Your task to perform on an android device: Go to eBay Image 0: 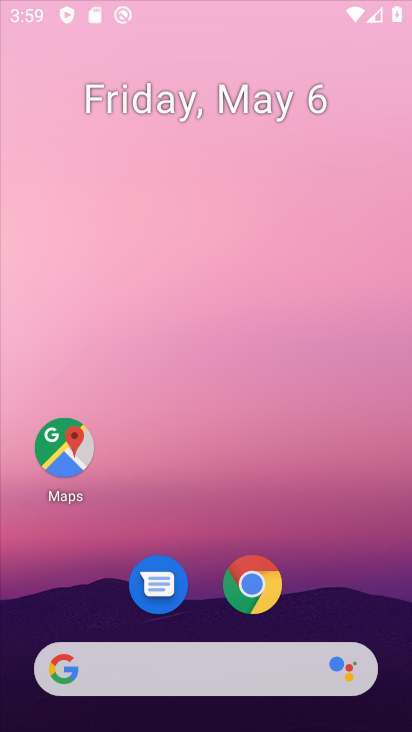
Step 0: click (207, 239)
Your task to perform on an android device: Go to eBay Image 1: 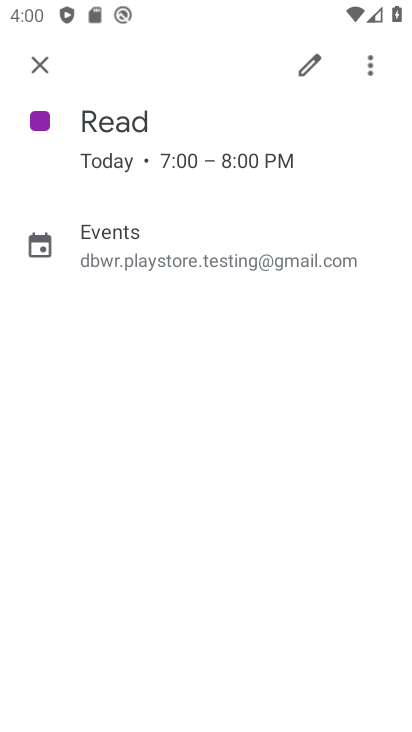
Step 1: press home button
Your task to perform on an android device: Go to eBay Image 2: 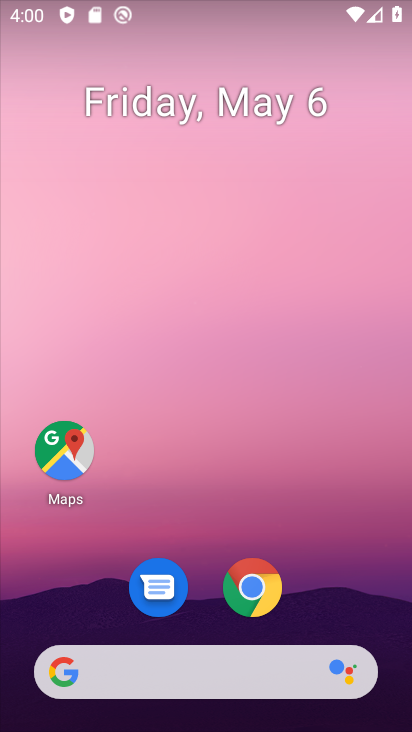
Step 2: drag from (309, 623) to (342, 165)
Your task to perform on an android device: Go to eBay Image 3: 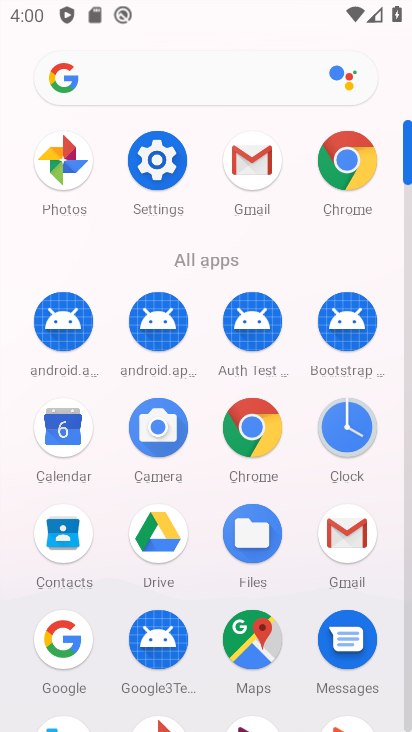
Step 3: click (245, 188)
Your task to perform on an android device: Go to eBay Image 4: 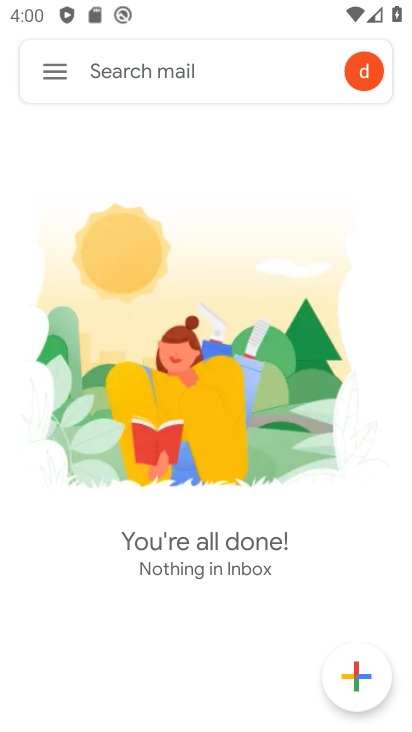
Step 4: click (40, 100)
Your task to perform on an android device: Go to eBay Image 5: 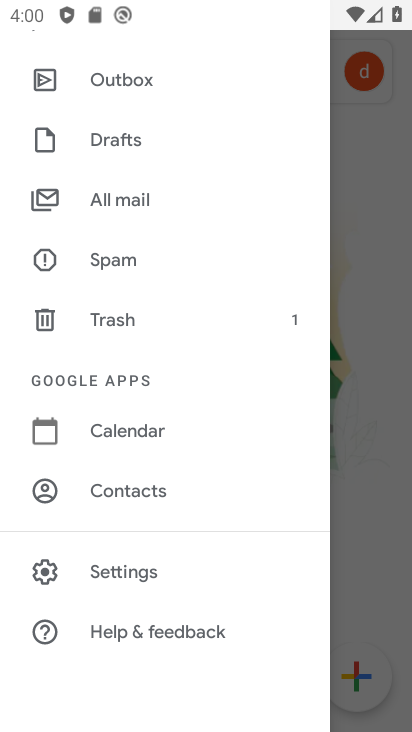
Step 5: drag from (140, 213) to (98, 503)
Your task to perform on an android device: Go to eBay Image 6: 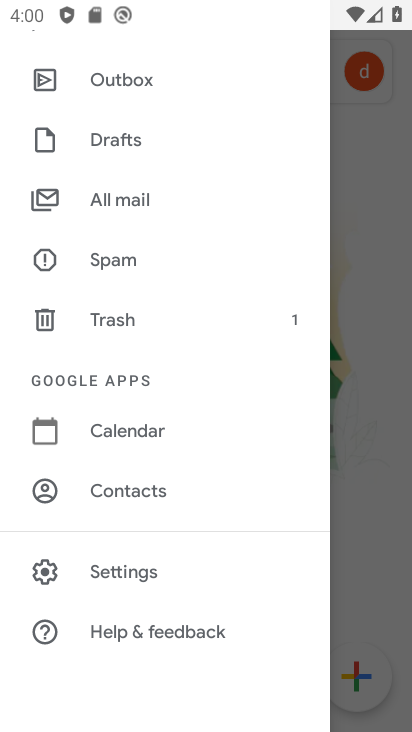
Step 6: drag from (98, 126) to (177, 427)
Your task to perform on an android device: Go to eBay Image 7: 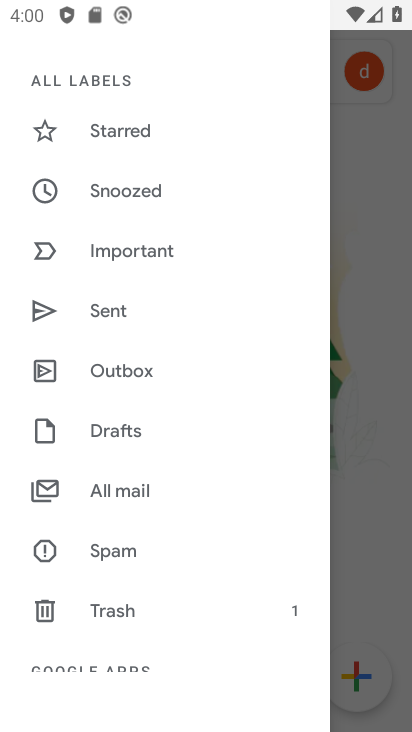
Step 7: click (144, 140)
Your task to perform on an android device: Go to eBay Image 8: 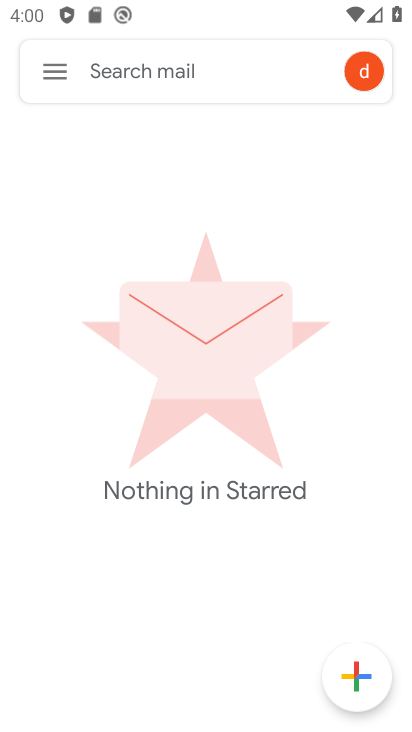
Step 8: press home button
Your task to perform on an android device: Go to eBay Image 9: 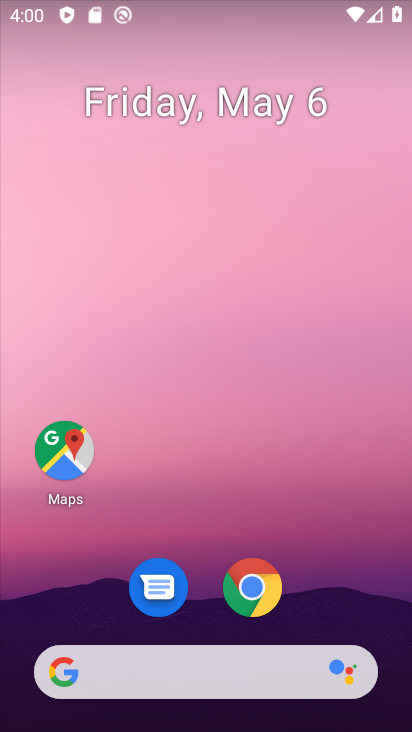
Step 9: drag from (347, 713) to (326, 141)
Your task to perform on an android device: Go to eBay Image 10: 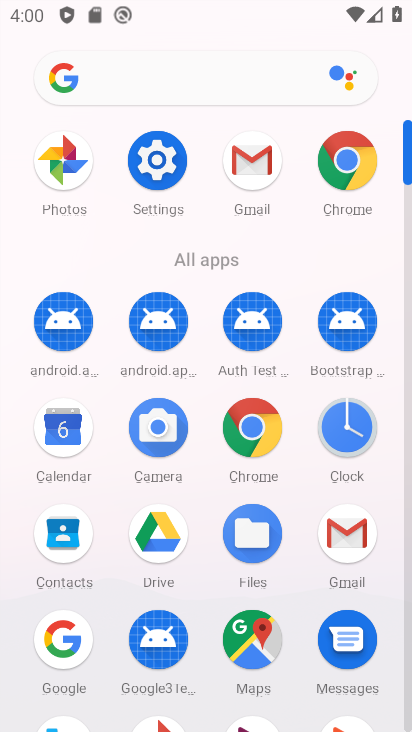
Step 10: click (346, 175)
Your task to perform on an android device: Go to eBay Image 11: 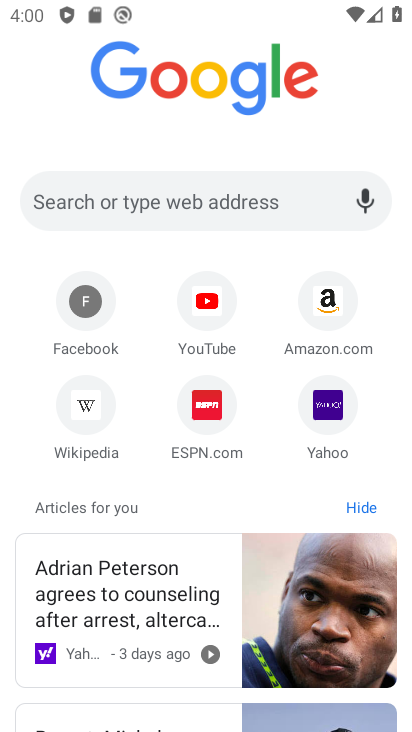
Step 11: click (160, 201)
Your task to perform on an android device: Go to eBay Image 12: 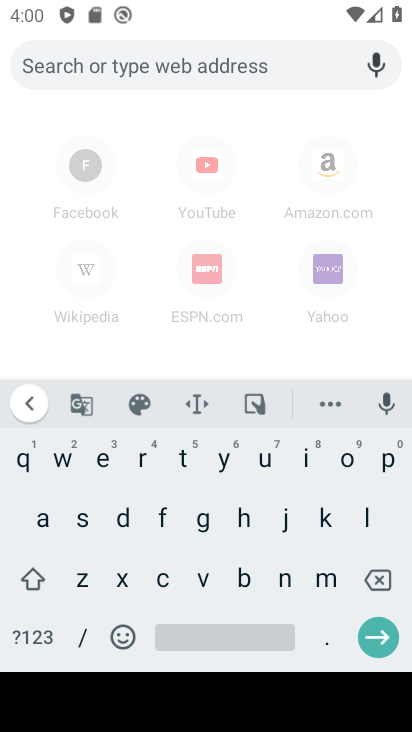
Step 12: click (99, 462)
Your task to perform on an android device: Go to eBay Image 13: 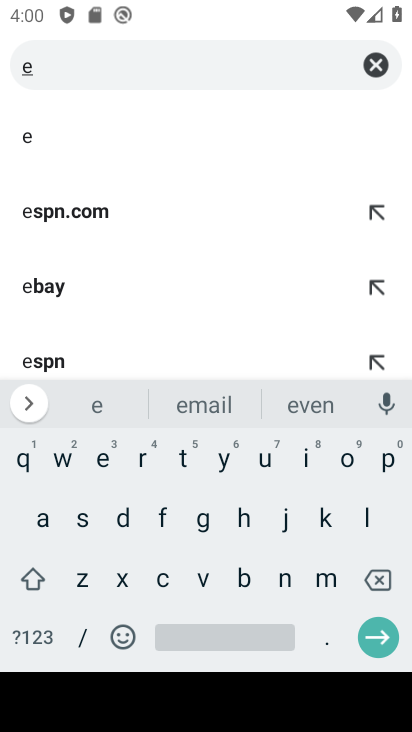
Step 13: click (95, 293)
Your task to perform on an android device: Go to eBay Image 14: 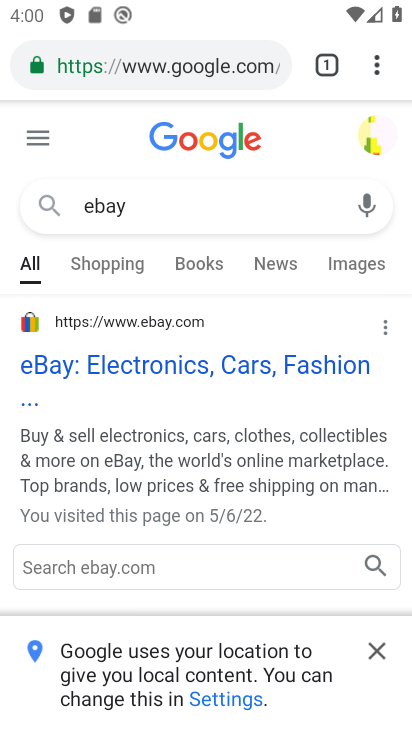
Step 14: click (71, 374)
Your task to perform on an android device: Go to eBay Image 15: 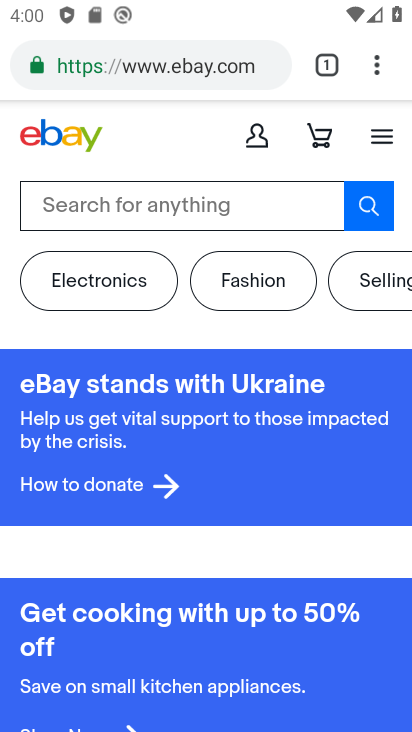
Step 15: task complete